Your task to perform on an android device: open app "Messages" (install if not already installed) Image 0: 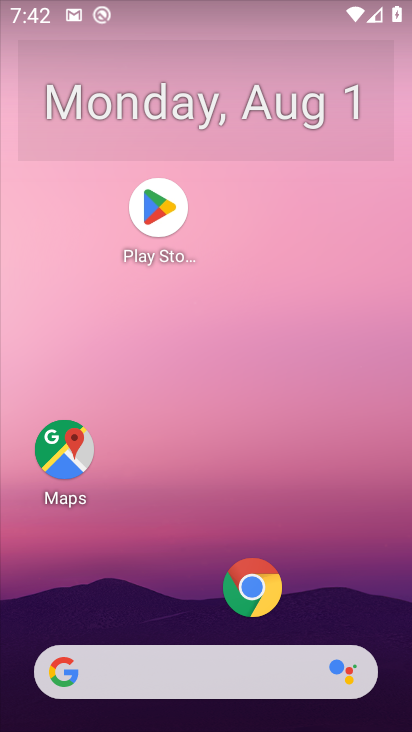
Step 0: drag from (198, 610) to (203, 87)
Your task to perform on an android device: open app "Messages" (install if not already installed) Image 1: 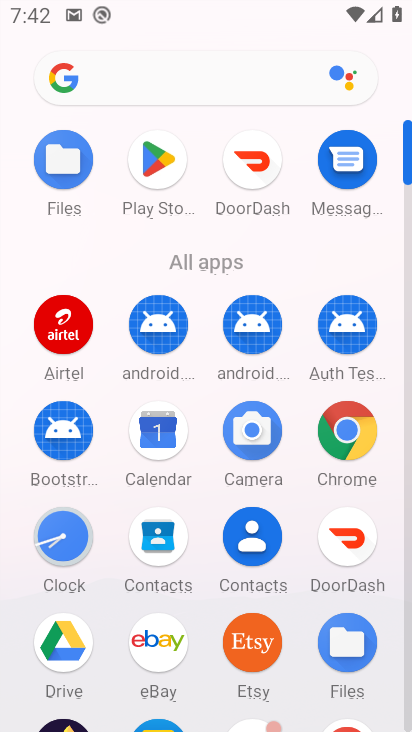
Step 1: click (156, 158)
Your task to perform on an android device: open app "Messages" (install if not already installed) Image 2: 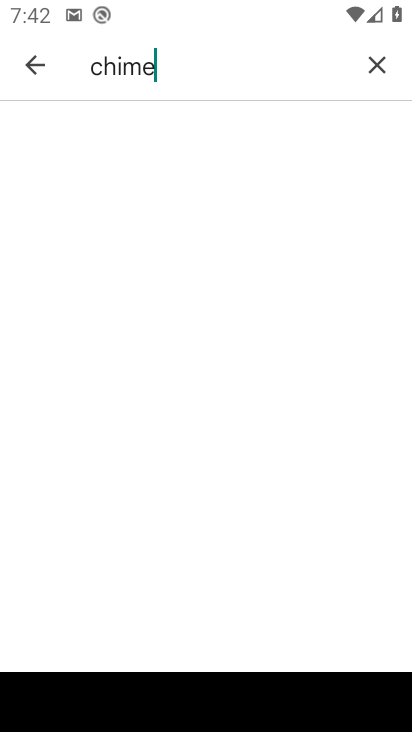
Step 2: click (369, 91)
Your task to perform on an android device: open app "Messages" (install if not already installed) Image 3: 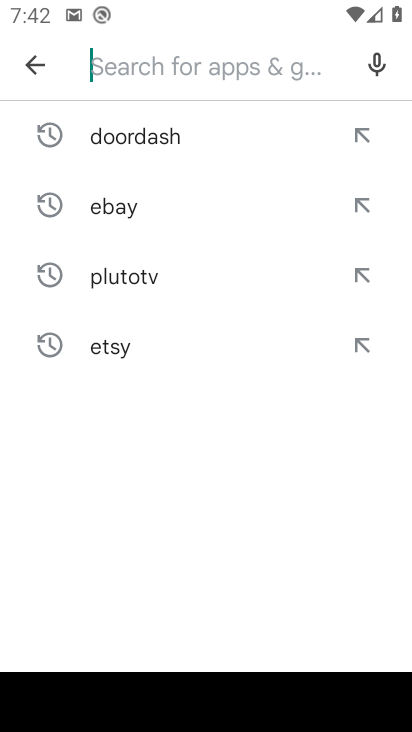
Step 3: click (29, 83)
Your task to perform on an android device: open app "Messages" (install if not already installed) Image 4: 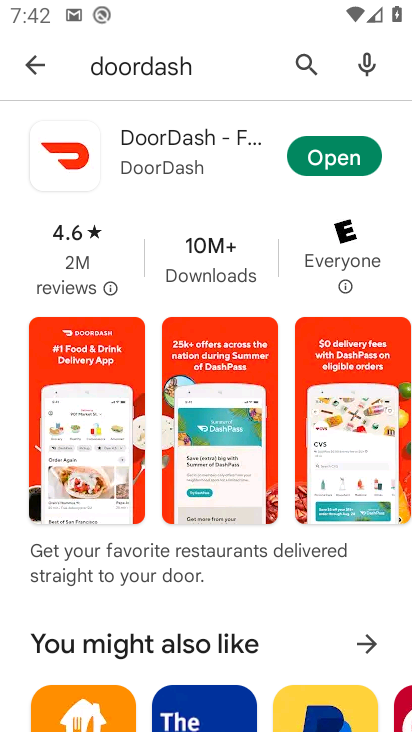
Step 4: click (29, 83)
Your task to perform on an android device: open app "Messages" (install if not already installed) Image 5: 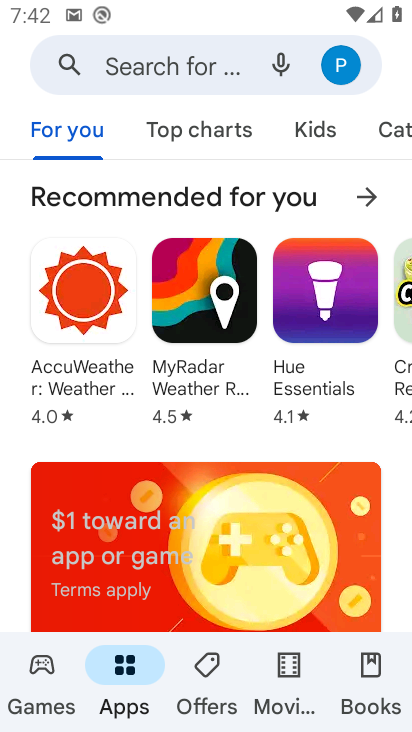
Step 5: click (167, 88)
Your task to perform on an android device: open app "Messages" (install if not already installed) Image 6: 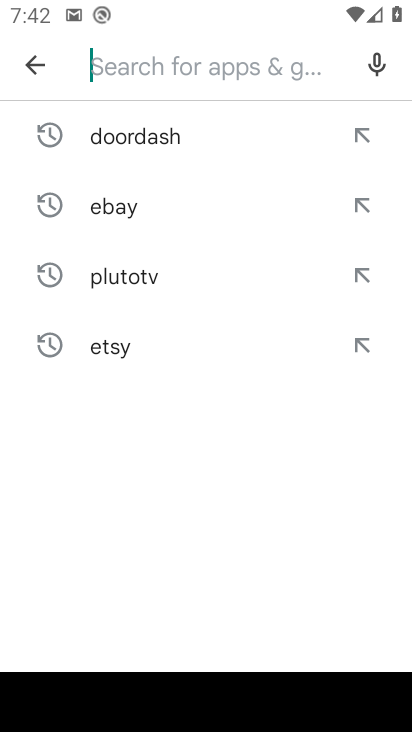
Step 6: task complete